Your task to perform on an android device: change the upload size in google photos Image 0: 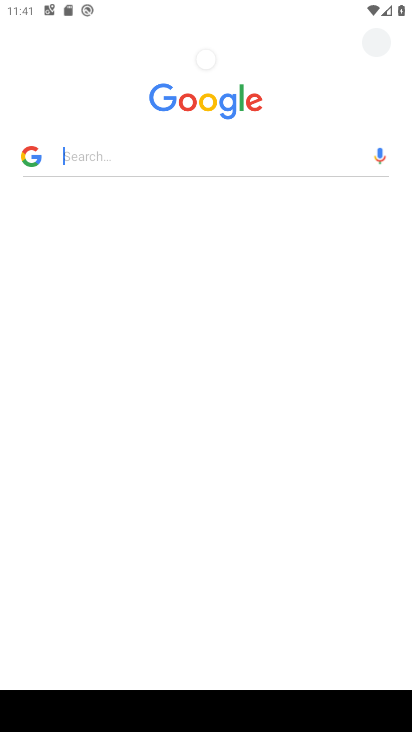
Step 0: press home button
Your task to perform on an android device: change the upload size in google photos Image 1: 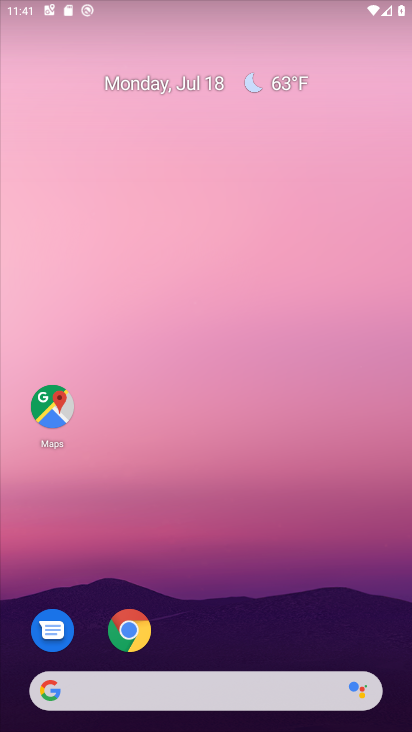
Step 1: drag from (200, 649) to (226, 157)
Your task to perform on an android device: change the upload size in google photos Image 2: 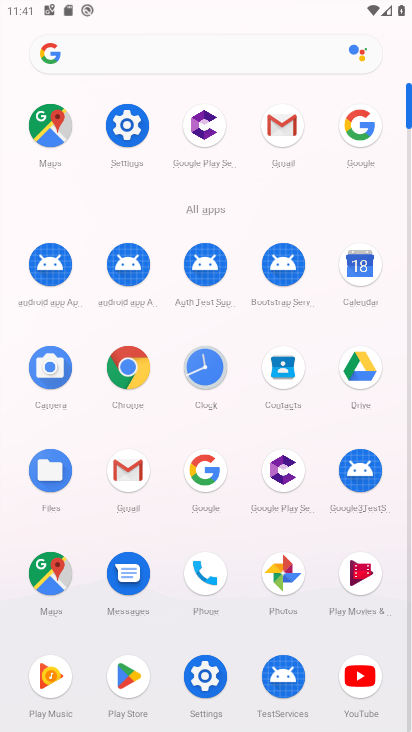
Step 2: click (284, 574)
Your task to perform on an android device: change the upload size in google photos Image 3: 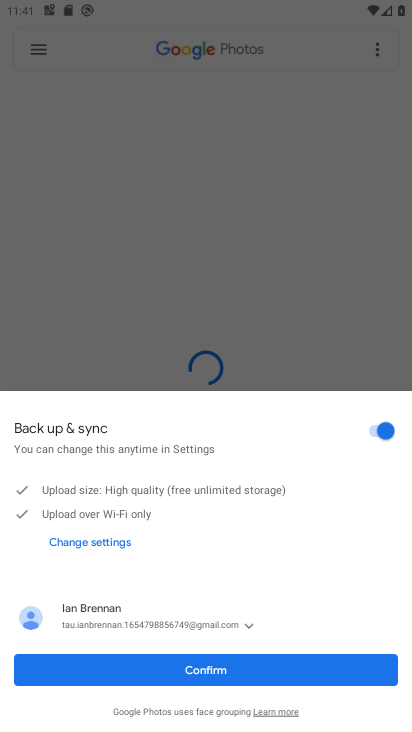
Step 3: click (207, 671)
Your task to perform on an android device: change the upload size in google photos Image 4: 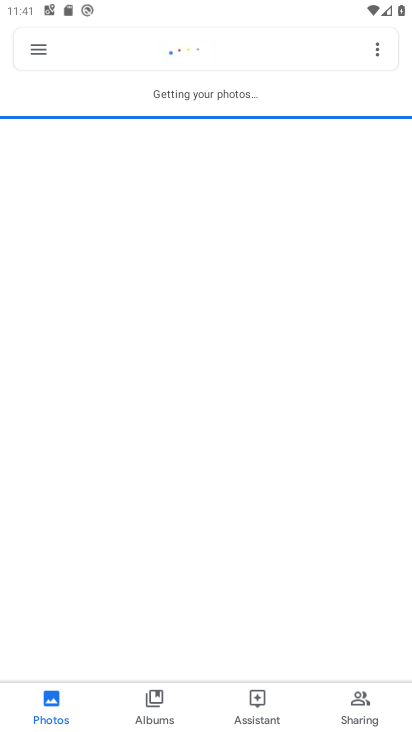
Step 4: click (35, 52)
Your task to perform on an android device: change the upload size in google photos Image 5: 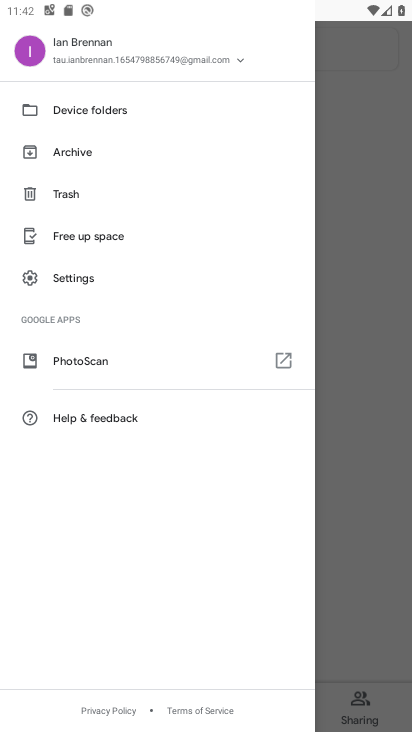
Step 5: click (66, 275)
Your task to perform on an android device: change the upload size in google photos Image 6: 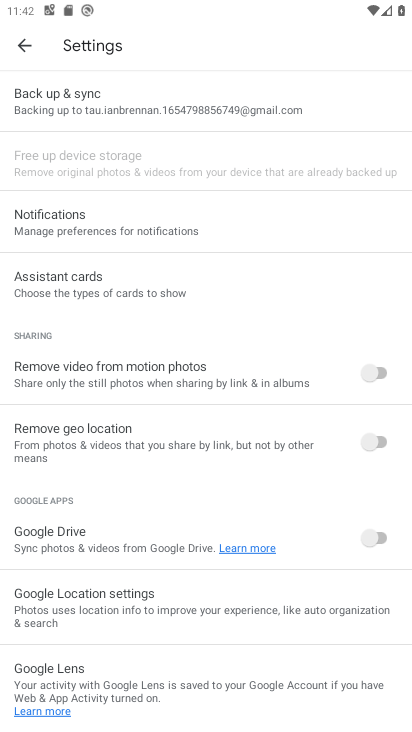
Step 6: click (83, 103)
Your task to perform on an android device: change the upload size in google photos Image 7: 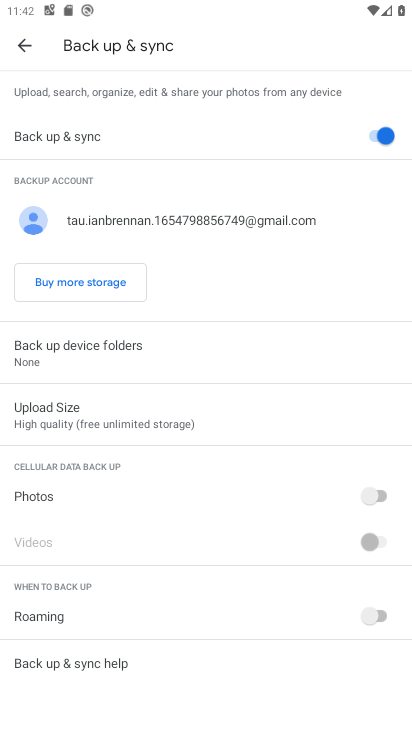
Step 7: click (68, 421)
Your task to perform on an android device: change the upload size in google photos Image 8: 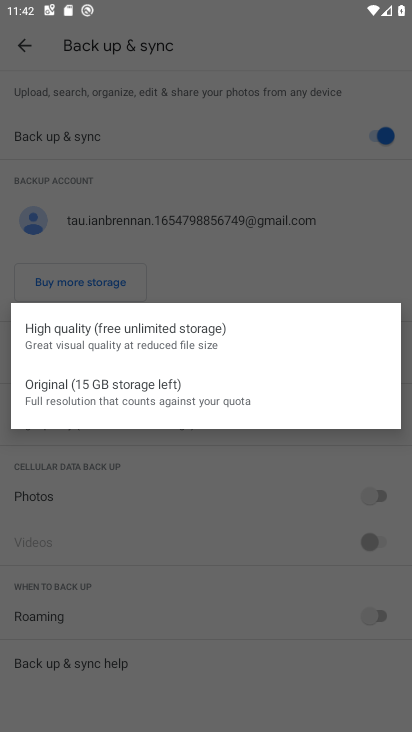
Step 8: drag from (219, 502) to (219, 593)
Your task to perform on an android device: change the upload size in google photos Image 9: 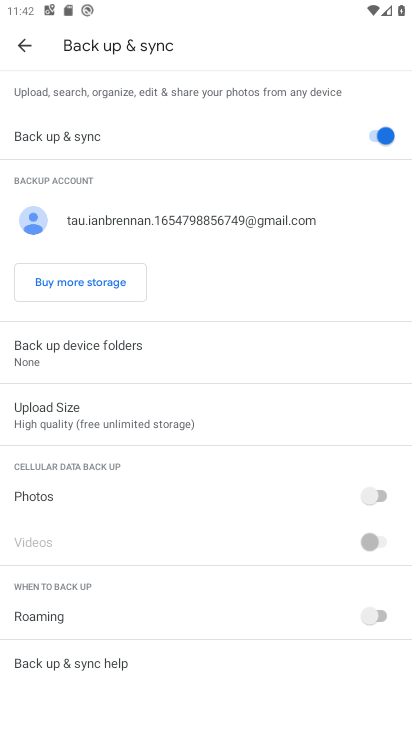
Step 9: click (96, 429)
Your task to perform on an android device: change the upload size in google photos Image 10: 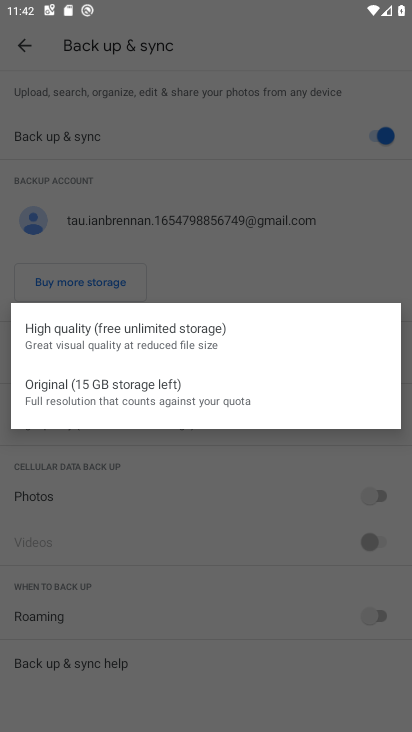
Step 10: click (97, 390)
Your task to perform on an android device: change the upload size in google photos Image 11: 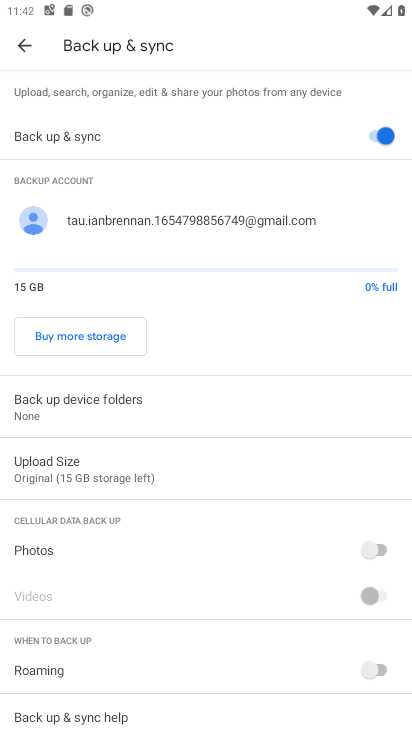
Step 11: task complete